Your task to perform on an android device: Open sound settings Image 0: 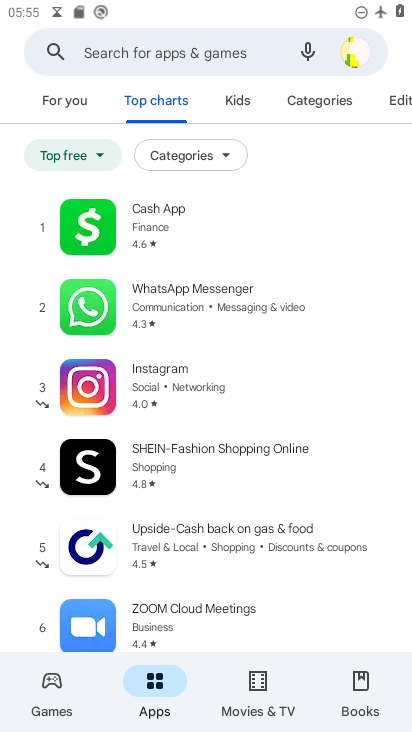
Step 0: press home button
Your task to perform on an android device: Open sound settings Image 1: 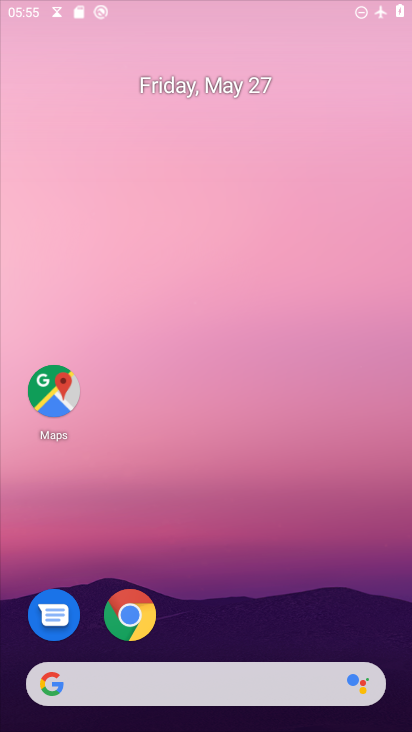
Step 1: drag from (288, 485) to (205, 26)
Your task to perform on an android device: Open sound settings Image 2: 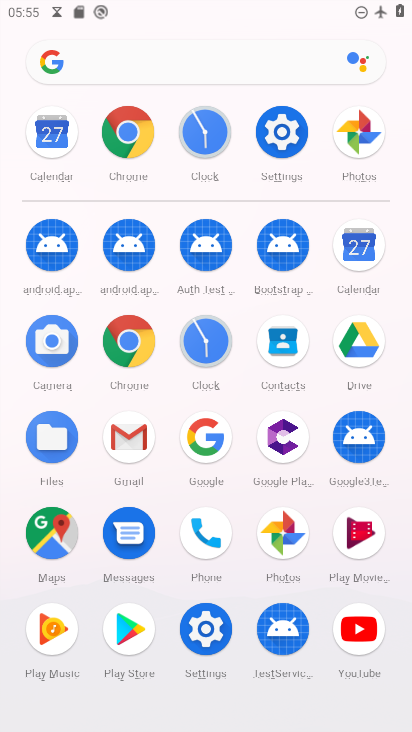
Step 2: click (288, 141)
Your task to perform on an android device: Open sound settings Image 3: 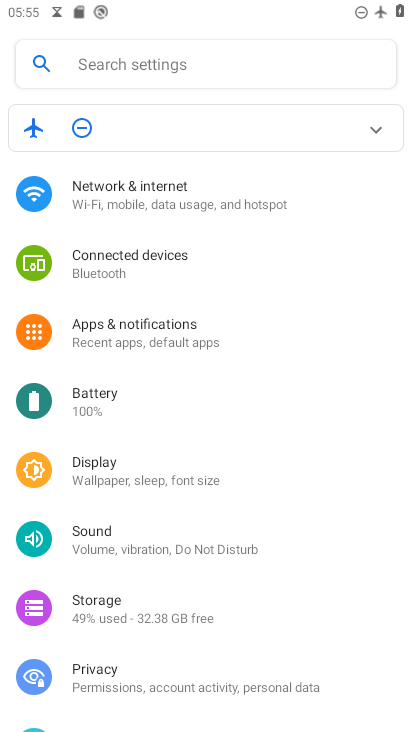
Step 3: click (140, 552)
Your task to perform on an android device: Open sound settings Image 4: 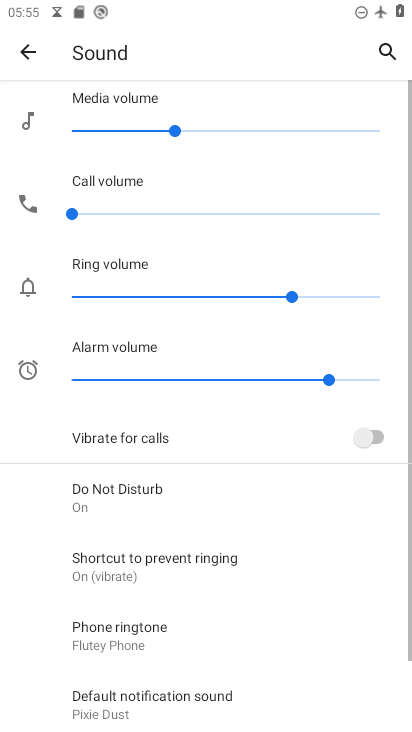
Step 4: task complete